Your task to perform on an android device: Search for a nice rug on Crate & Barrel Image 0: 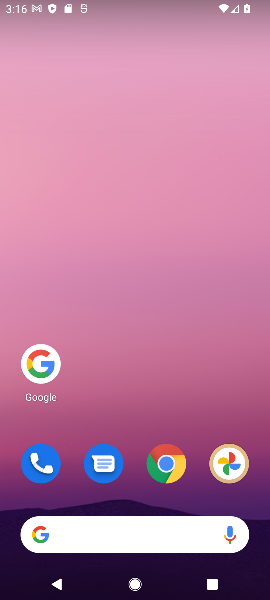
Step 0: drag from (166, 501) to (168, 176)
Your task to perform on an android device: Search for a nice rug on Crate & Barrel Image 1: 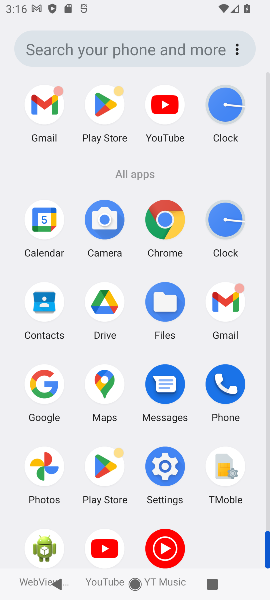
Step 1: click (41, 377)
Your task to perform on an android device: Search for a nice rug on Crate & Barrel Image 2: 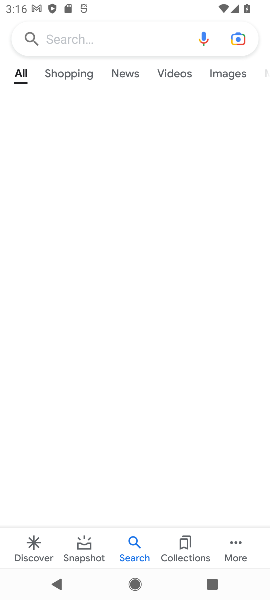
Step 2: click (79, 29)
Your task to perform on an android device: Search for a nice rug on Crate & Barrel Image 3: 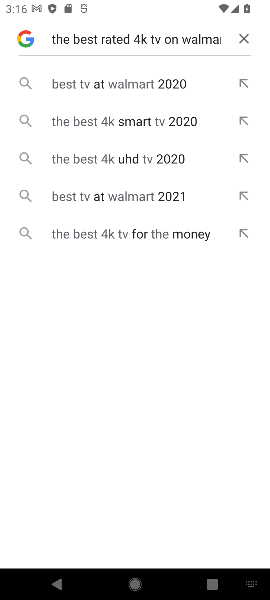
Step 3: type "a nice rug on Crate & Barrel "
Your task to perform on an android device: Search for a nice rug on Crate & Barrel Image 4: 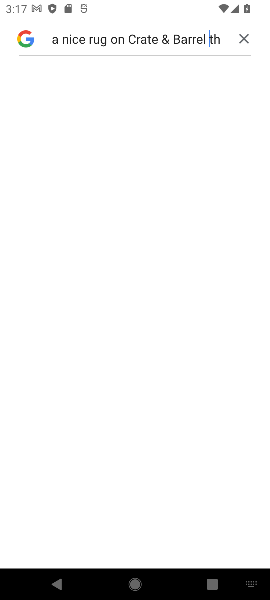
Step 4: click (249, 36)
Your task to perform on an android device: Search for a nice rug on Crate & Barrel Image 5: 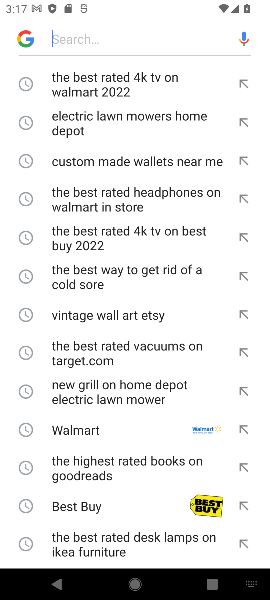
Step 5: click (134, 47)
Your task to perform on an android device: Search for a nice rug on Crate & Barrel Image 6: 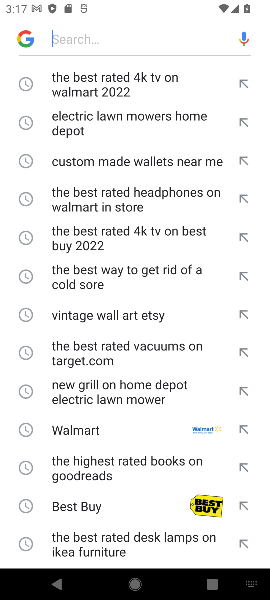
Step 6: type "a nice rug on Crate & Barrel \"
Your task to perform on an android device: Search for a nice rug on Crate & Barrel Image 7: 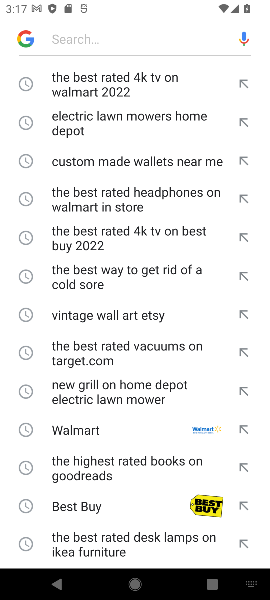
Step 7: click (102, 32)
Your task to perform on an android device: Search for a nice rug on Crate & Barrel Image 8: 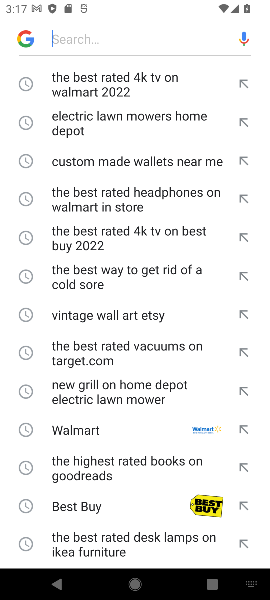
Step 8: type "nice rug on Crate & Barrel "
Your task to perform on an android device: Search for a nice rug on Crate & Barrel Image 9: 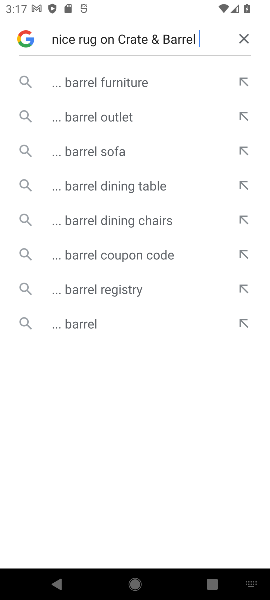
Step 9: click (123, 78)
Your task to perform on an android device: Search for a nice rug on Crate & Barrel Image 10: 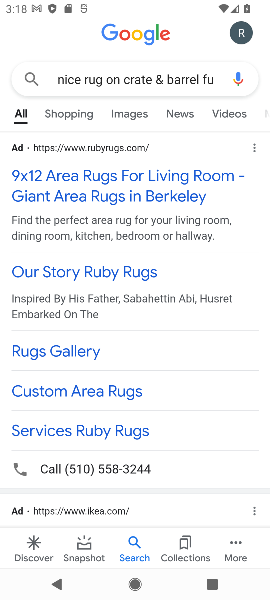
Step 10: click (141, 181)
Your task to perform on an android device: Search for a nice rug on Crate & Barrel Image 11: 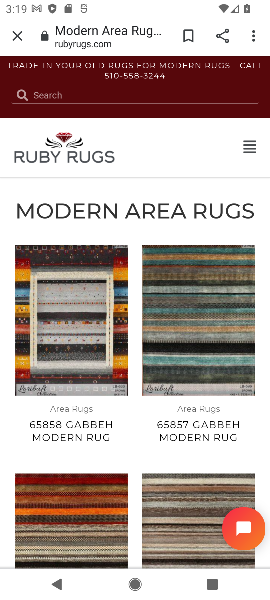
Step 11: task complete